Your task to perform on an android device: Open Google Image 0: 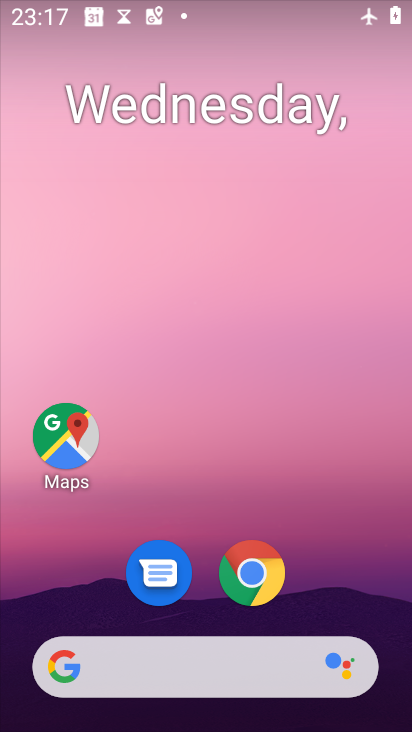
Step 0: drag from (324, 545) to (295, 228)
Your task to perform on an android device: Open Google Image 1: 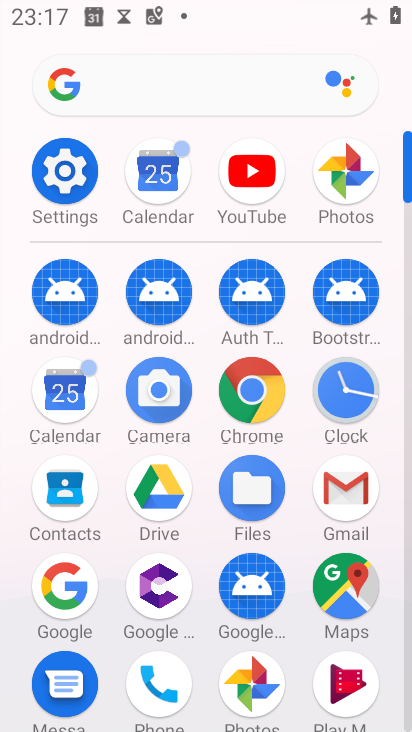
Step 1: click (62, 584)
Your task to perform on an android device: Open Google Image 2: 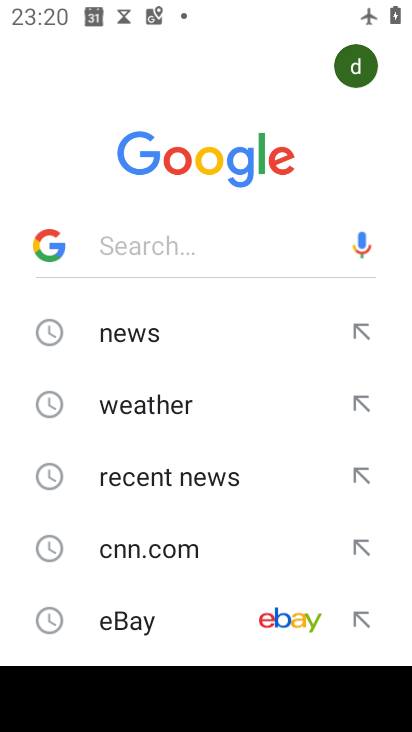
Step 2: task complete